Your task to perform on an android device: Go to network settings Image 0: 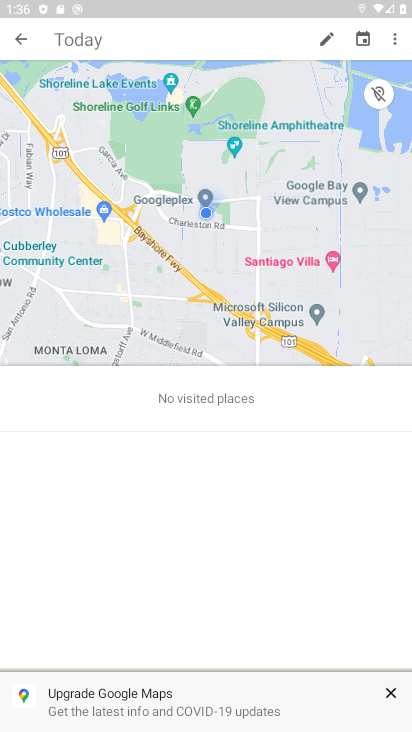
Step 0: press home button
Your task to perform on an android device: Go to network settings Image 1: 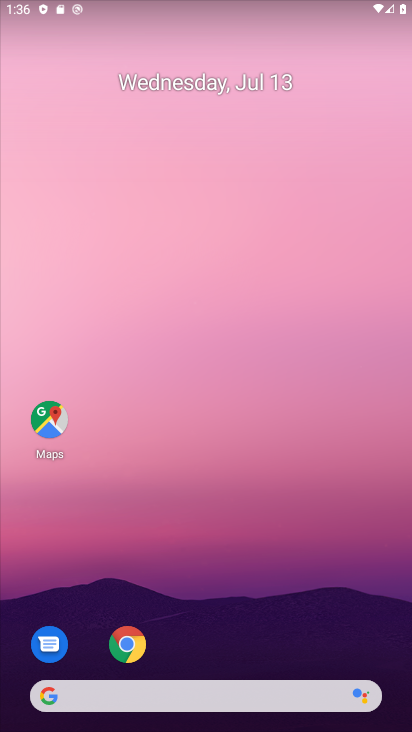
Step 1: drag from (194, 668) to (211, 88)
Your task to perform on an android device: Go to network settings Image 2: 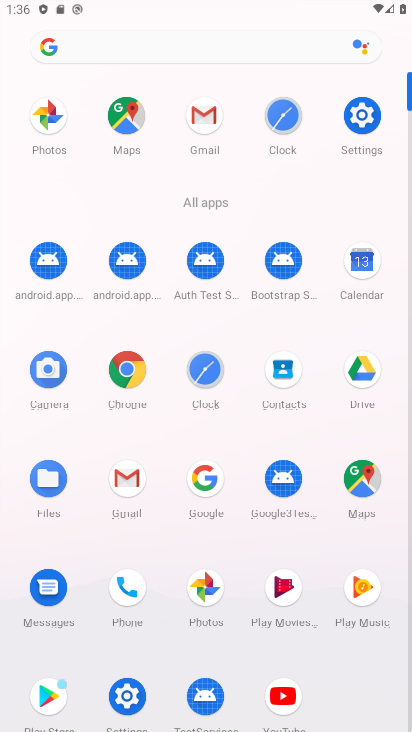
Step 2: click (126, 699)
Your task to perform on an android device: Go to network settings Image 3: 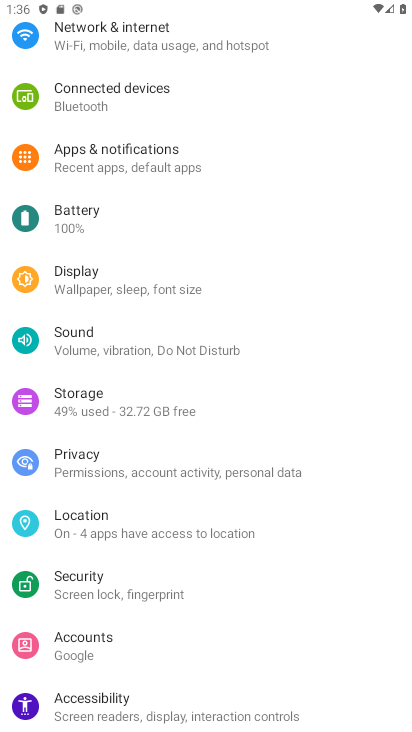
Step 3: drag from (137, 82) to (105, 595)
Your task to perform on an android device: Go to network settings Image 4: 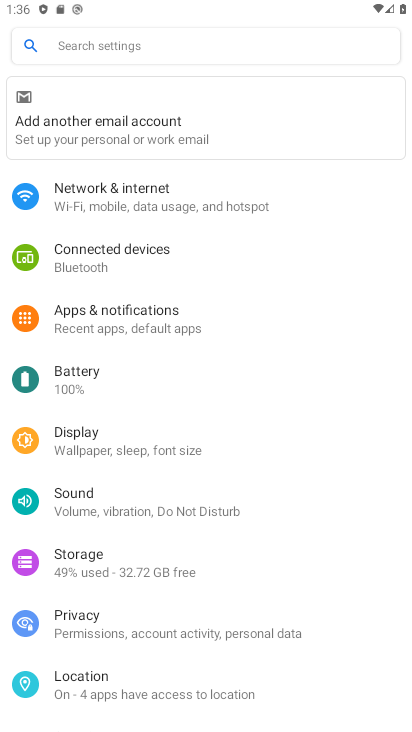
Step 4: click (166, 189)
Your task to perform on an android device: Go to network settings Image 5: 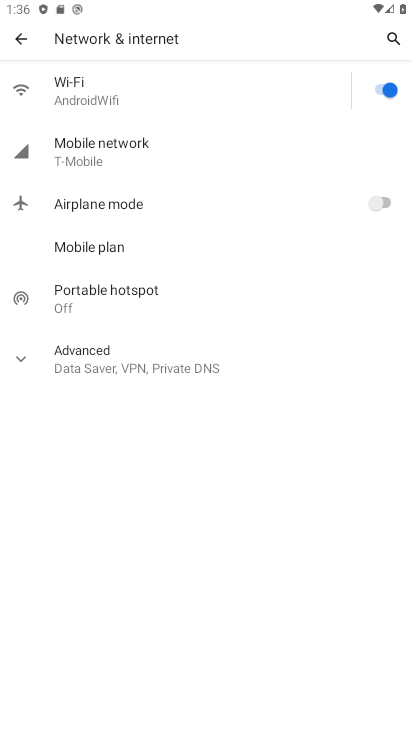
Step 5: click (132, 161)
Your task to perform on an android device: Go to network settings Image 6: 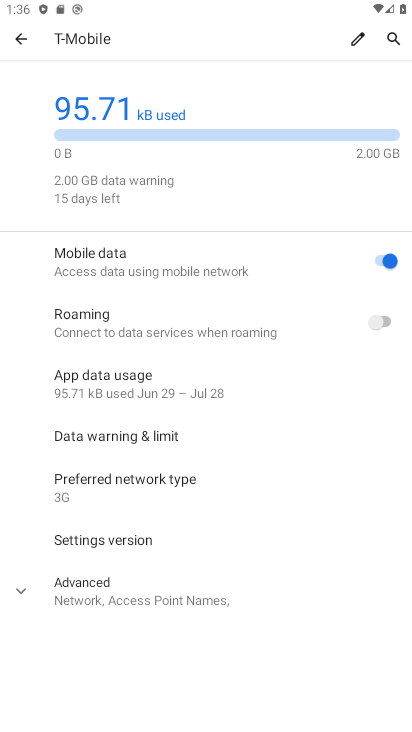
Step 6: task complete